Your task to perform on an android device: Search for custom made wallets on etsy.com Image 0: 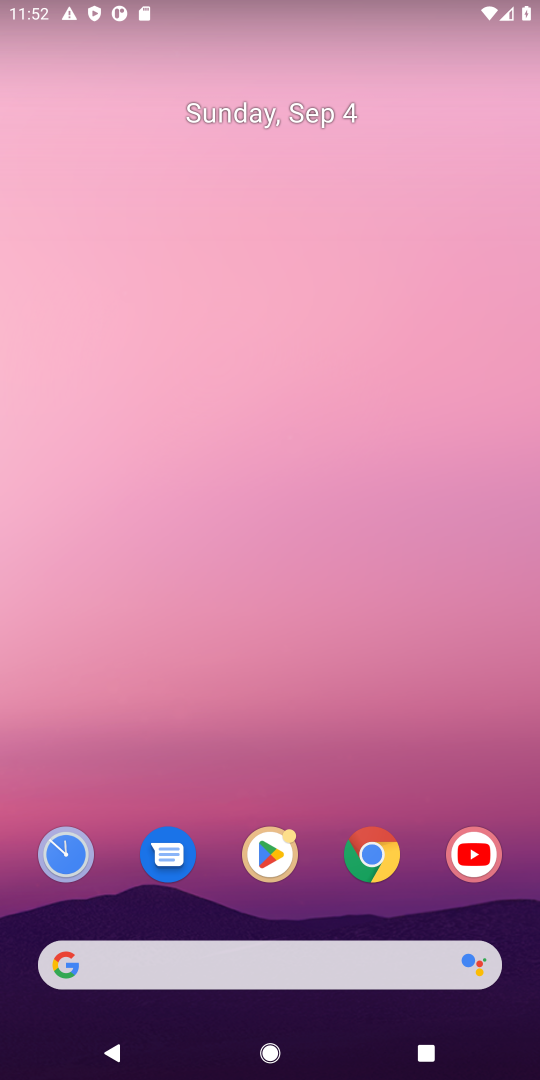
Step 0: press home button
Your task to perform on an android device: Search for custom made wallets on etsy.com Image 1: 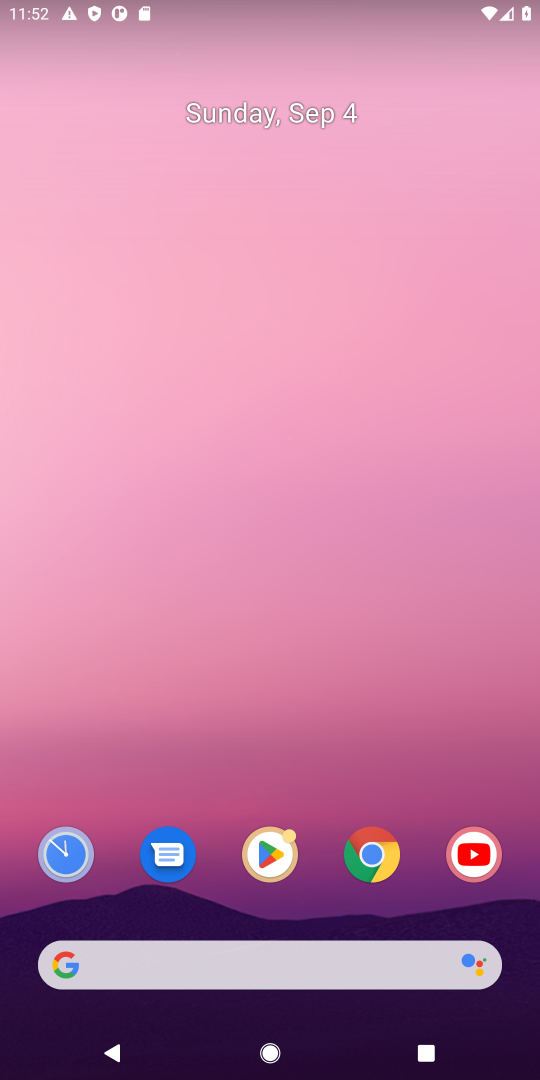
Step 1: click (364, 964)
Your task to perform on an android device: Search for custom made wallets on etsy.com Image 2: 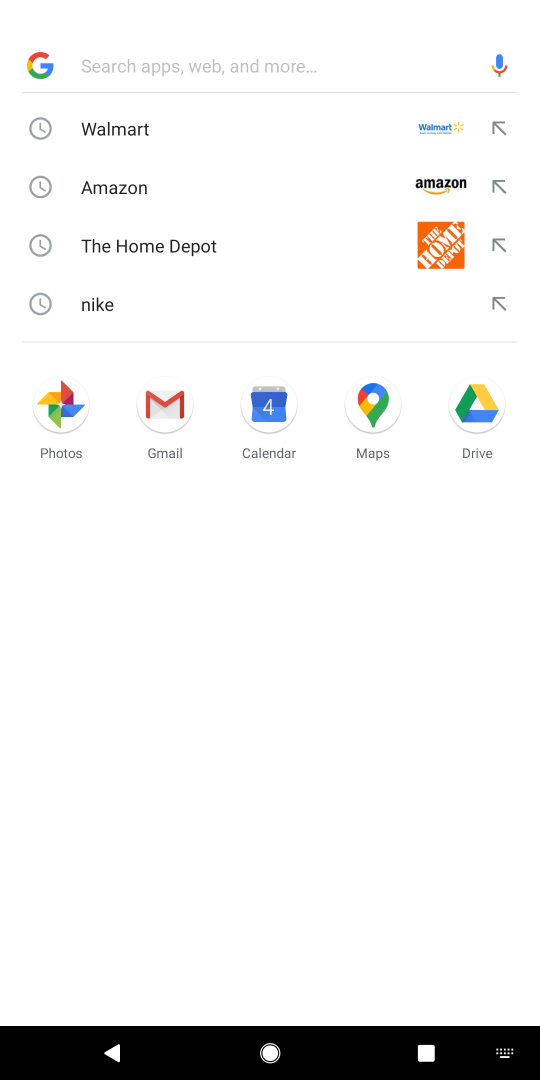
Step 2: type "etsy.com"
Your task to perform on an android device: Search for custom made wallets on etsy.com Image 3: 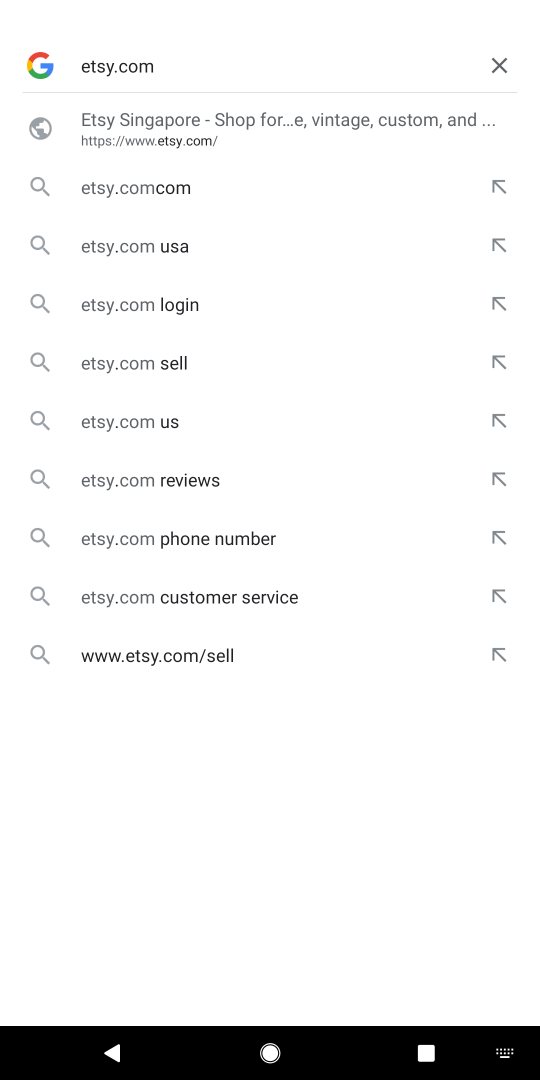
Step 3: press enter
Your task to perform on an android device: Search for custom made wallets on etsy.com Image 4: 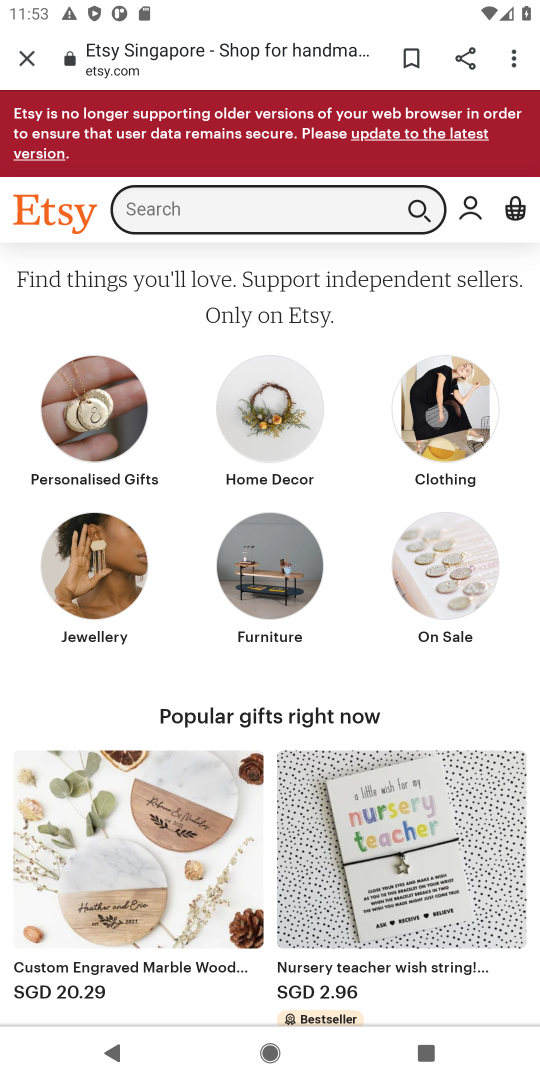
Step 4: click (280, 208)
Your task to perform on an android device: Search for custom made wallets on etsy.com Image 5: 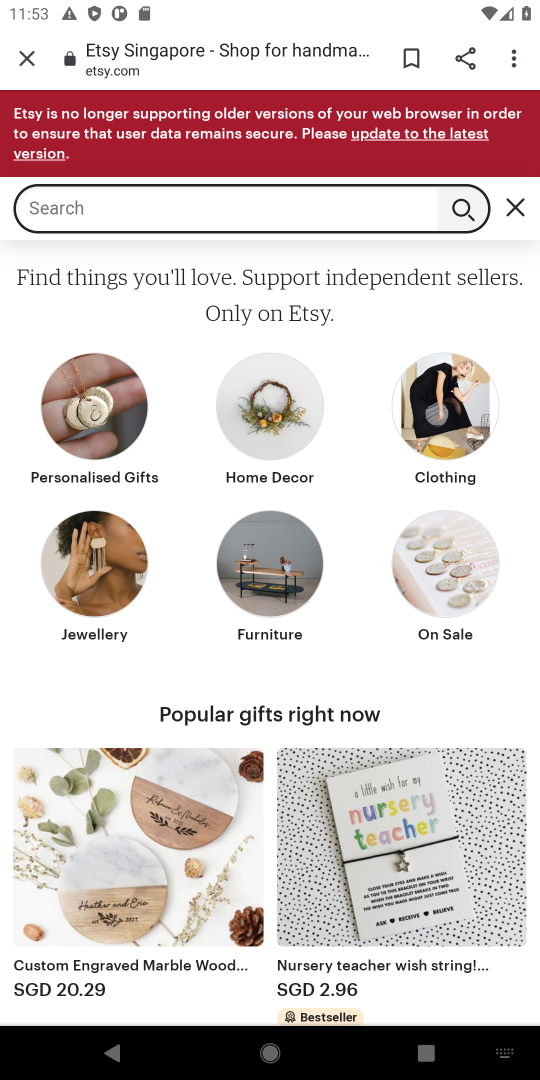
Step 5: type "custom made wallets"
Your task to perform on an android device: Search for custom made wallets on etsy.com Image 6: 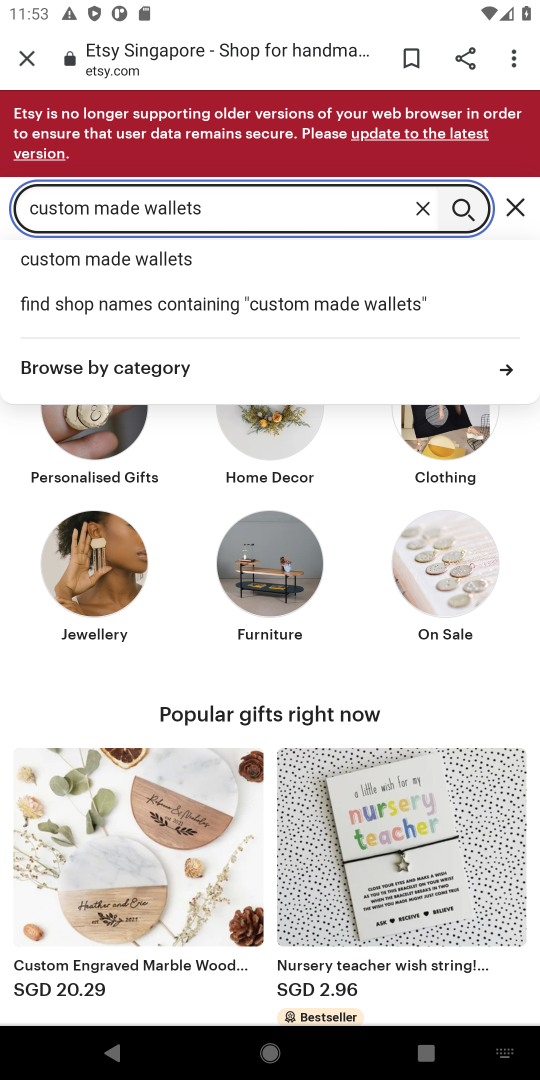
Step 6: click (162, 257)
Your task to perform on an android device: Search for custom made wallets on etsy.com Image 7: 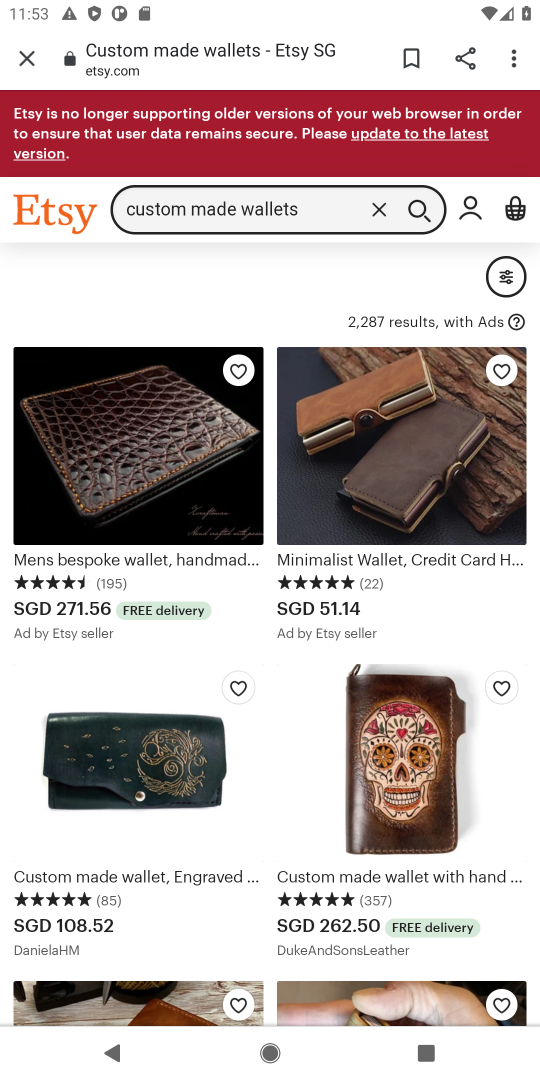
Step 7: task complete